Your task to perform on an android device: star an email in the gmail app Image 0: 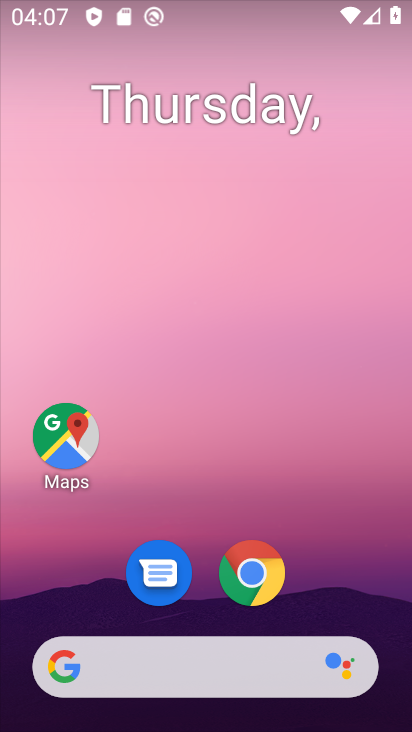
Step 0: drag from (388, 659) to (278, 77)
Your task to perform on an android device: star an email in the gmail app Image 1: 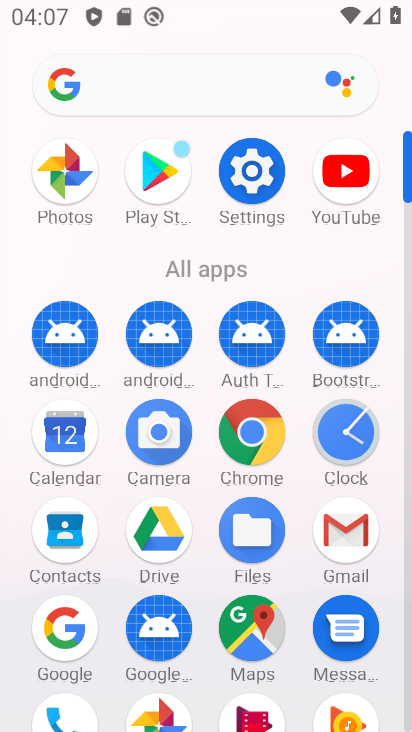
Step 1: click (342, 530)
Your task to perform on an android device: star an email in the gmail app Image 2: 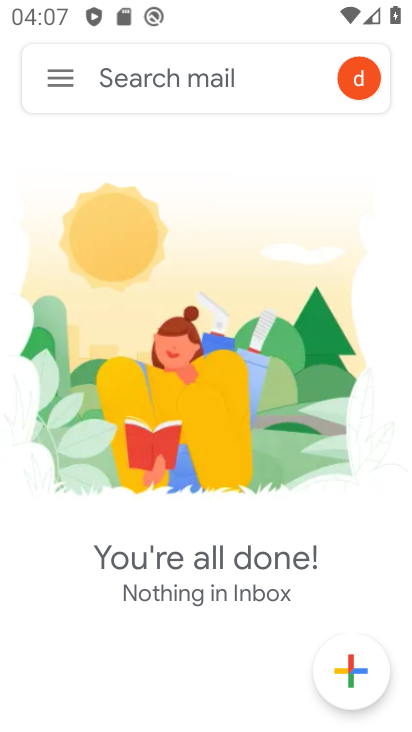
Step 2: click (60, 81)
Your task to perform on an android device: star an email in the gmail app Image 3: 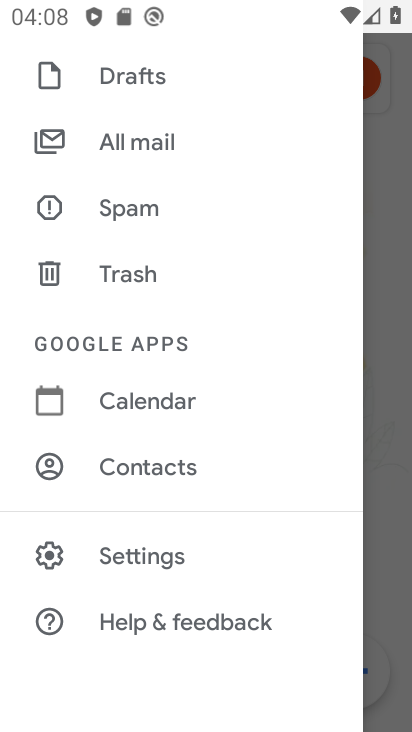
Step 3: click (122, 142)
Your task to perform on an android device: star an email in the gmail app Image 4: 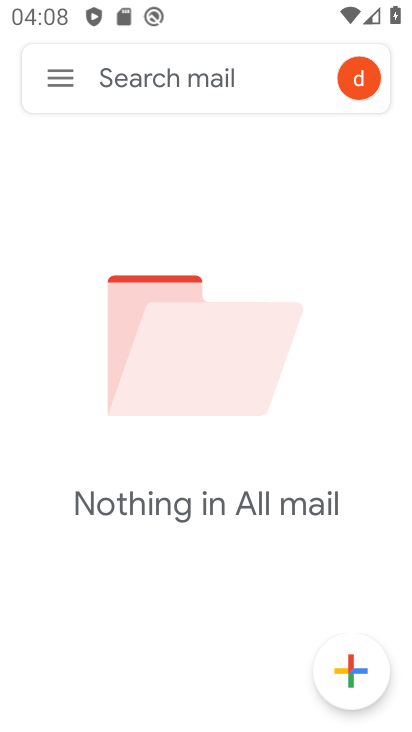
Step 4: task complete